Your task to perform on an android device: Open Google Maps Image 0: 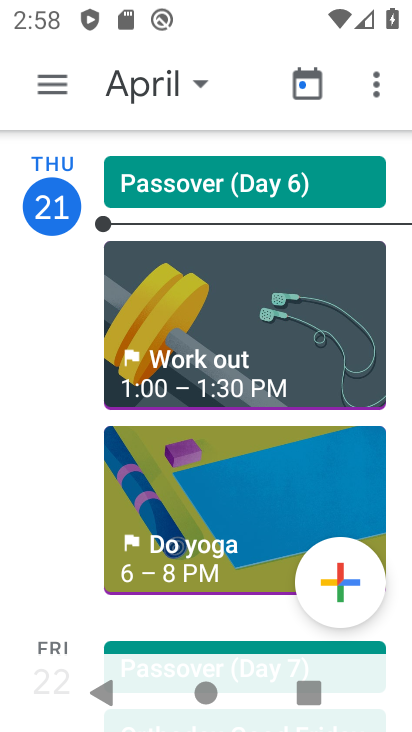
Step 0: press home button
Your task to perform on an android device: Open Google Maps Image 1: 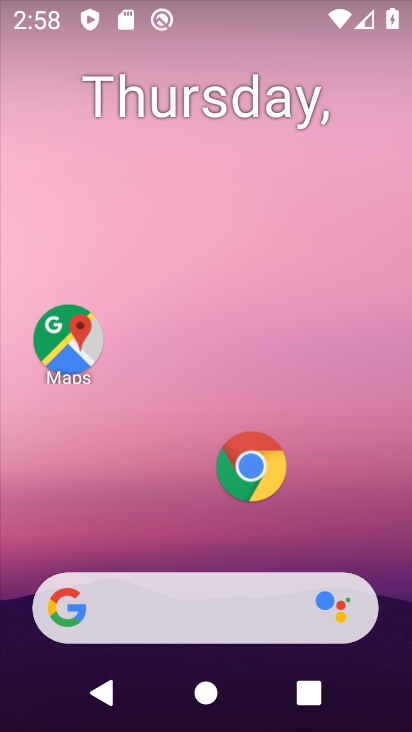
Step 1: click (72, 368)
Your task to perform on an android device: Open Google Maps Image 2: 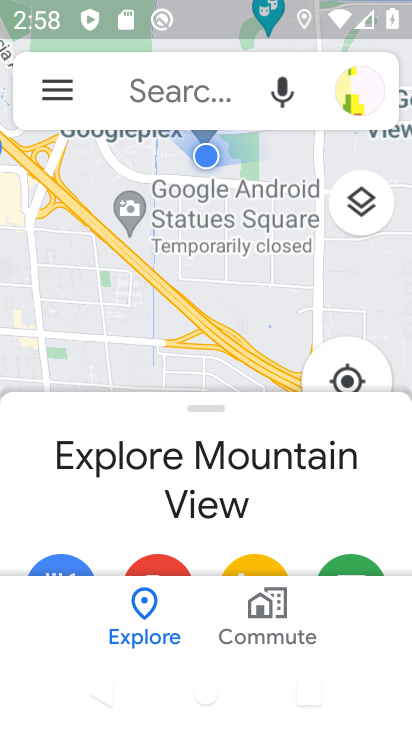
Step 2: task complete